Your task to perform on an android device: Open calendar and show me the fourth week of next month Image 0: 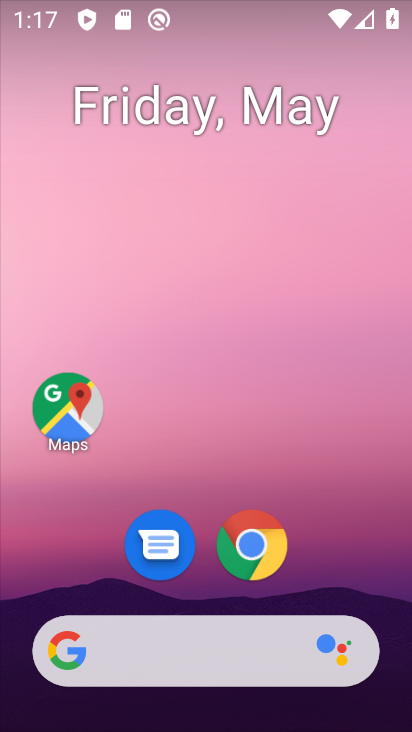
Step 0: drag from (307, 669) to (143, 83)
Your task to perform on an android device: Open calendar and show me the fourth week of next month Image 1: 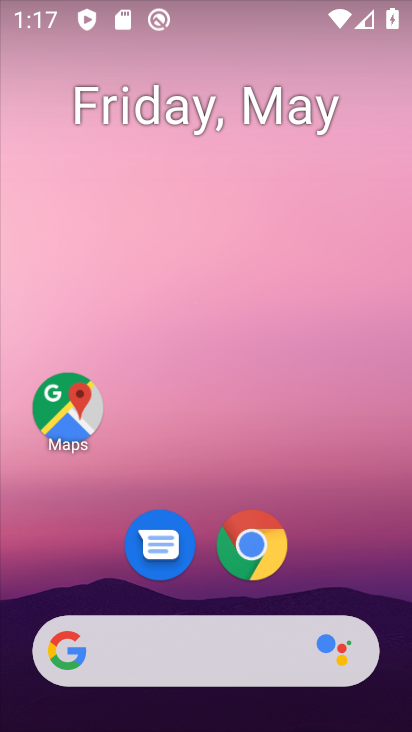
Step 1: drag from (330, 502) to (158, 4)
Your task to perform on an android device: Open calendar and show me the fourth week of next month Image 2: 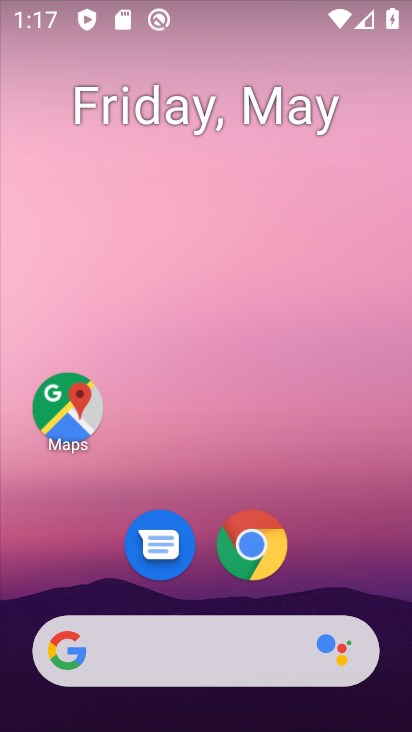
Step 2: drag from (347, 547) to (155, 1)
Your task to perform on an android device: Open calendar and show me the fourth week of next month Image 3: 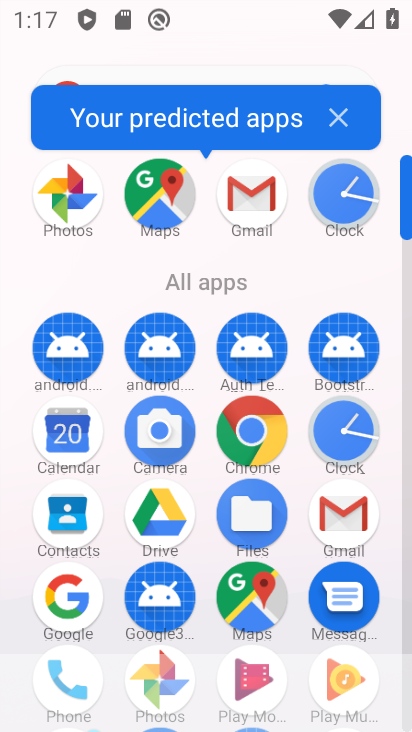
Step 3: drag from (121, 323) to (135, 10)
Your task to perform on an android device: Open calendar and show me the fourth week of next month Image 4: 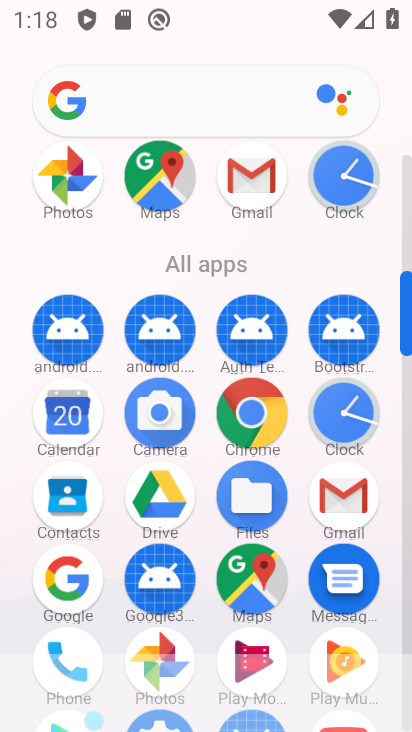
Step 4: click (67, 417)
Your task to perform on an android device: Open calendar and show me the fourth week of next month Image 5: 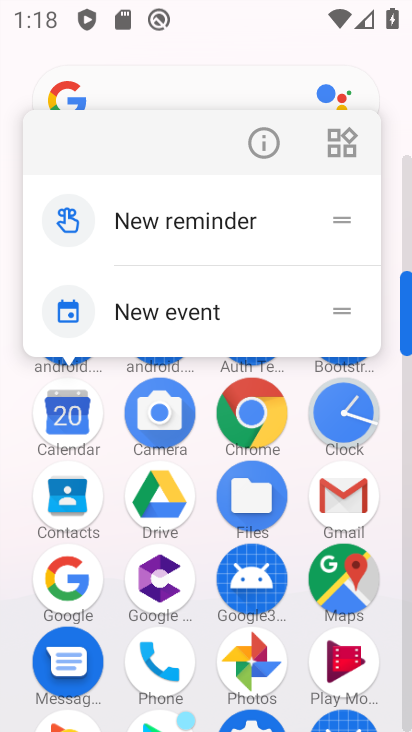
Step 5: click (164, 312)
Your task to perform on an android device: Open calendar and show me the fourth week of next month Image 6: 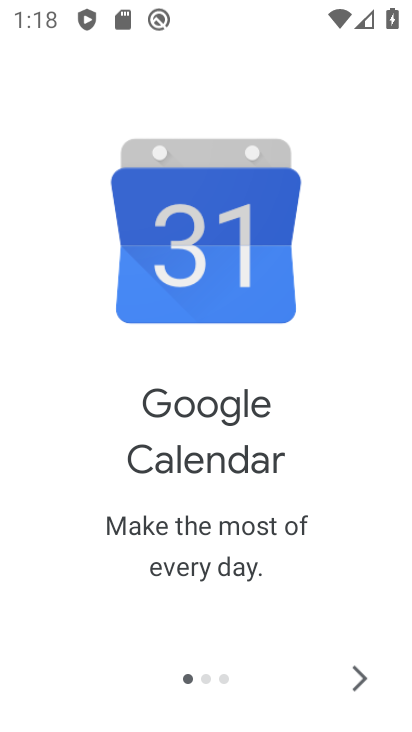
Step 6: click (362, 682)
Your task to perform on an android device: Open calendar and show me the fourth week of next month Image 7: 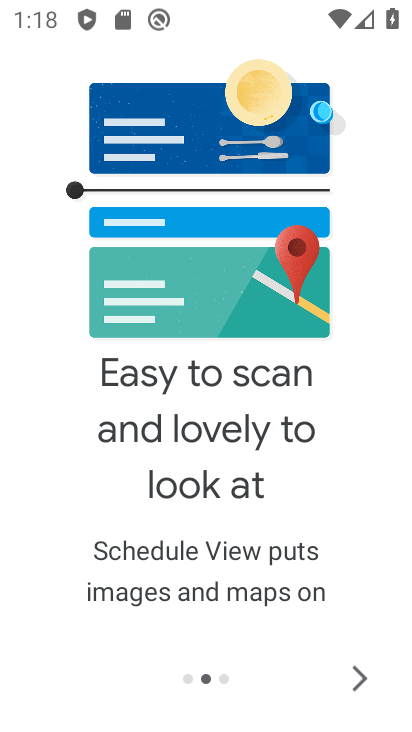
Step 7: click (368, 680)
Your task to perform on an android device: Open calendar and show me the fourth week of next month Image 8: 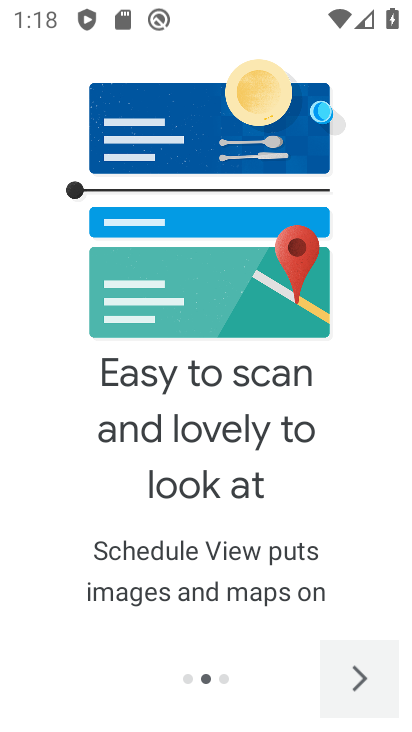
Step 8: click (367, 680)
Your task to perform on an android device: Open calendar and show me the fourth week of next month Image 9: 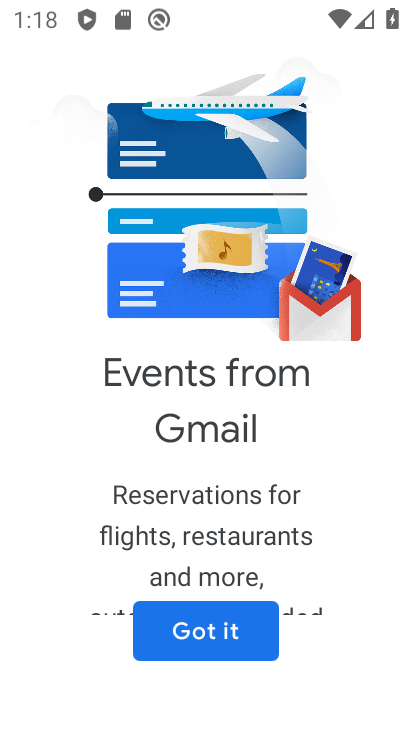
Step 9: click (236, 623)
Your task to perform on an android device: Open calendar and show me the fourth week of next month Image 10: 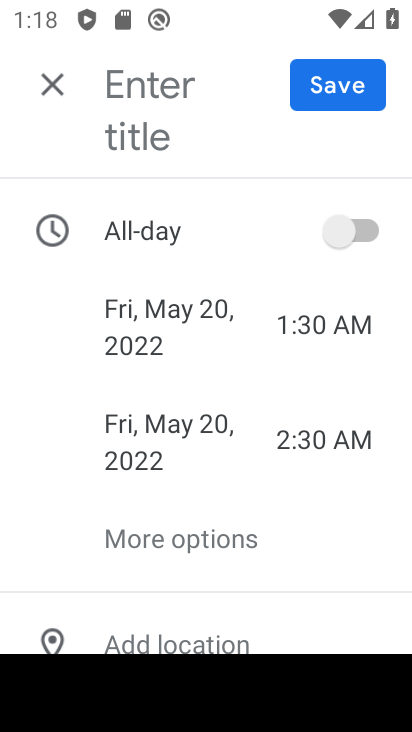
Step 10: click (62, 85)
Your task to perform on an android device: Open calendar and show me the fourth week of next month Image 11: 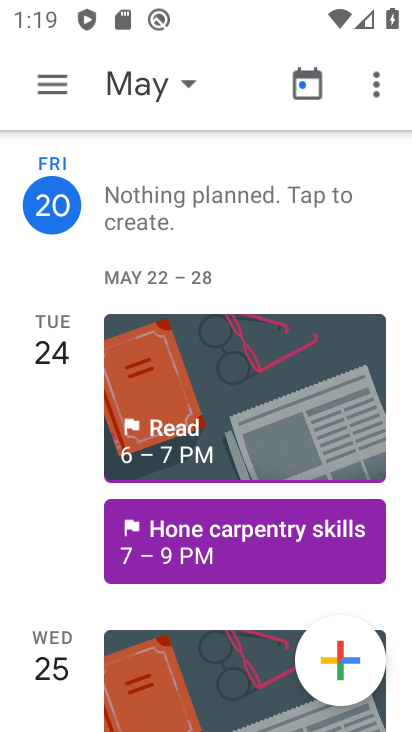
Step 11: click (184, 76)
Your task to perform on an android device: Open calendar and show me the fourth week of next month Image 12: 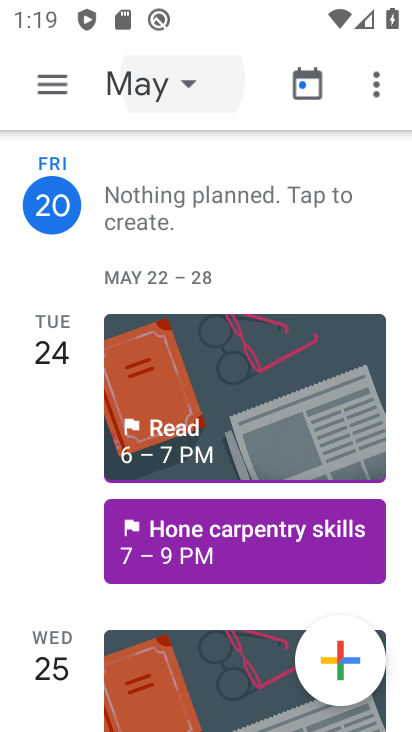
Step 12: click (187, 76)
Your task to perform on an android device: Open calendar and show me the fourth week of next month Image 13: 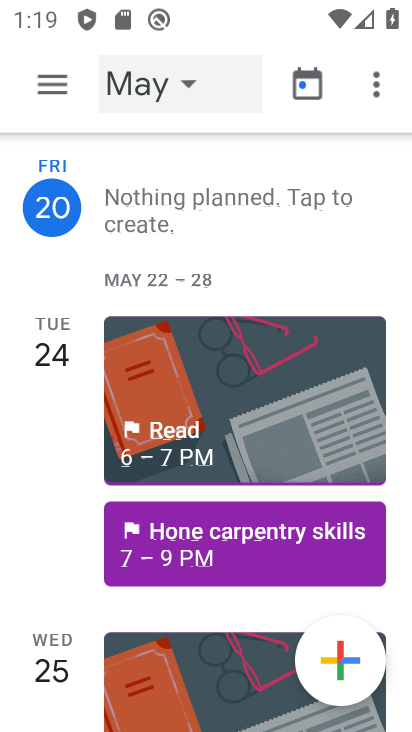
Step 13: click (190, 77)
Your task to perform on an android device: Open calendar and show me the fourth week of next month Image 14: 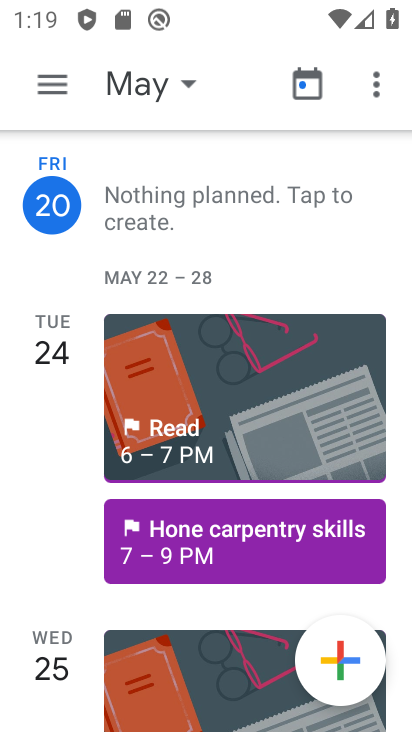
Step 14: click (176, 79)
Your task to perform on an android device: Open calendar and show me the fourth week of next month Image 15: 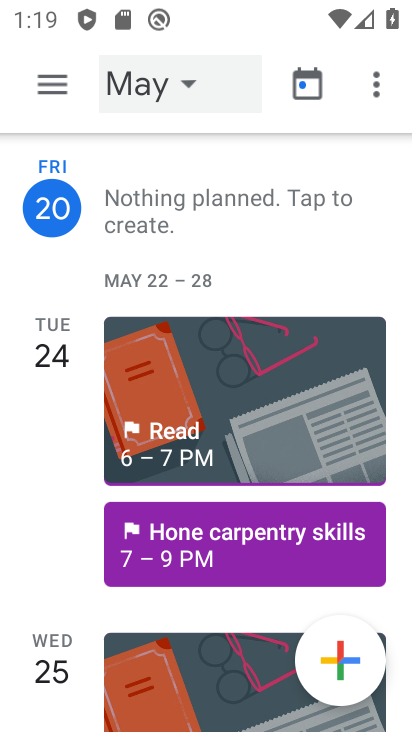
Step 15: click (181, 84)
Your task to perform on an android device: Open calendar and show me the fourth week of next month Image 16: 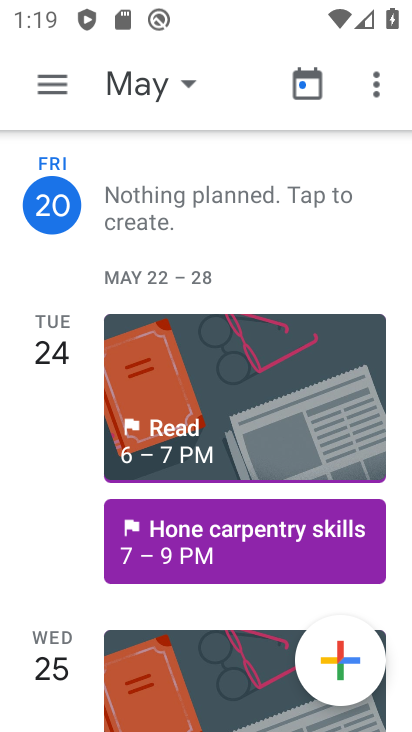
Step 16: click (184, 101)
Your task to perform on an android device: Open calendar and show me the fourth week of next month Image 17: 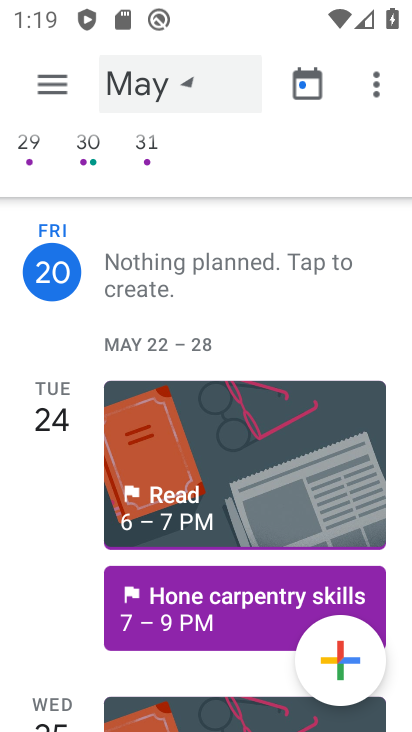
Step 17: click (181, 86)
Your task to perform on an android device: Open calendar and show me the fourth week of next month Image 18: 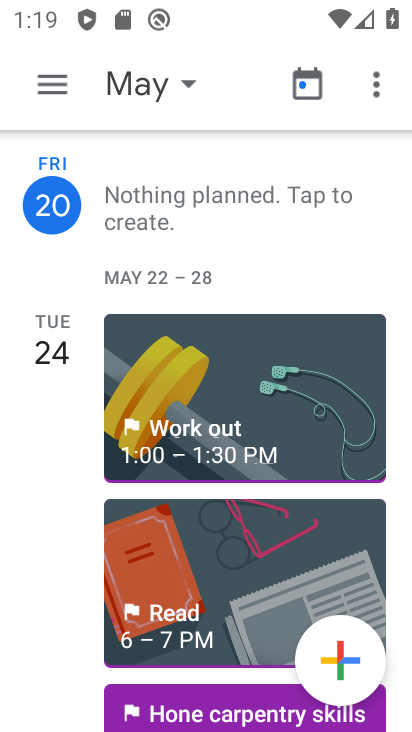
Step 18: click (189, 79)
Your task to perform on an android device: Open calendar and show me the fourth week of next month Image 19: 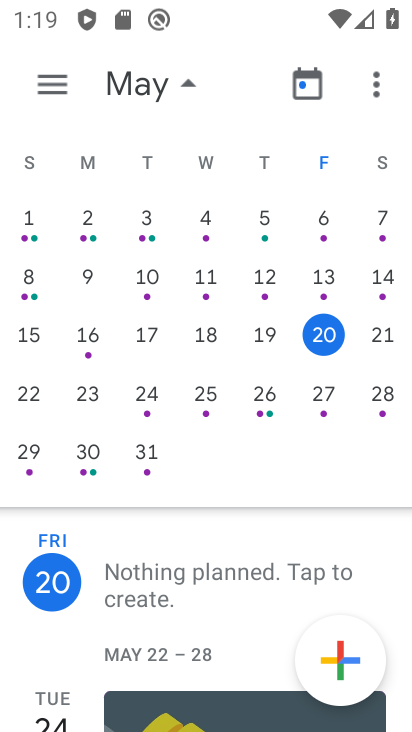
Step 19: drag from (292, 310) to (7, 320)
Your task to perform on an android device: Open calendar and show me the fourth week of next month Image 20: 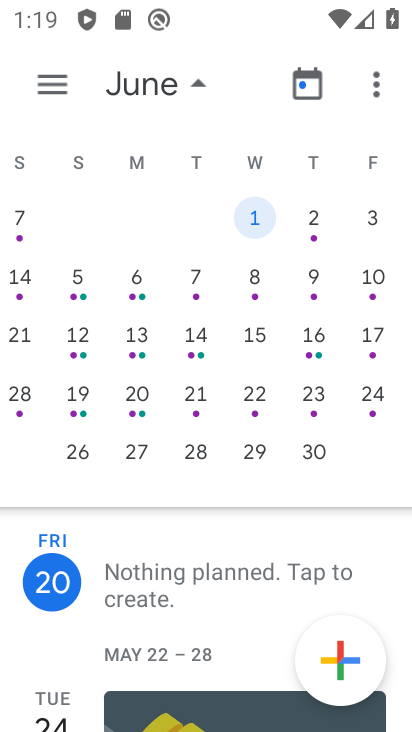
Step 20: drag from (243, 302) to (3, 260)
Your task to perform on an android device: Open calendar and show me the fourth week of next month Image 21: 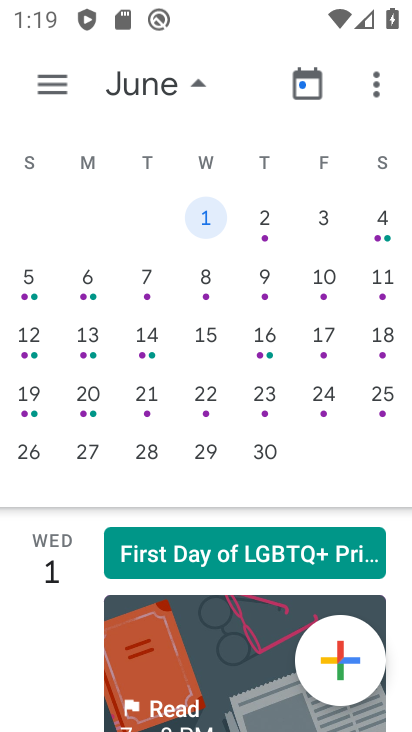
Step 21: click (198, 394)
Your task to perform on an android device: Open calendar and show me the fourth week of next month Image 22: 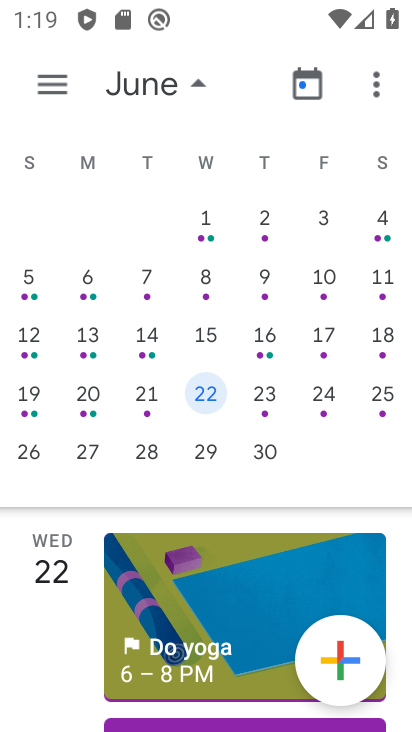
Step 22: click (199, 393)
Your task to perform on an android device: Open calendar and show me the fourth week of next month Image 23: 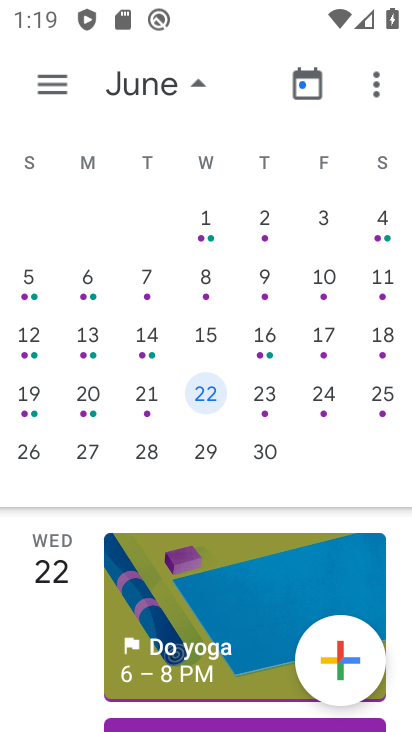
Step 23: click (204, 398)
Your task to perform on an android device: Open calendar and show me the fourth week of next month Image 24: 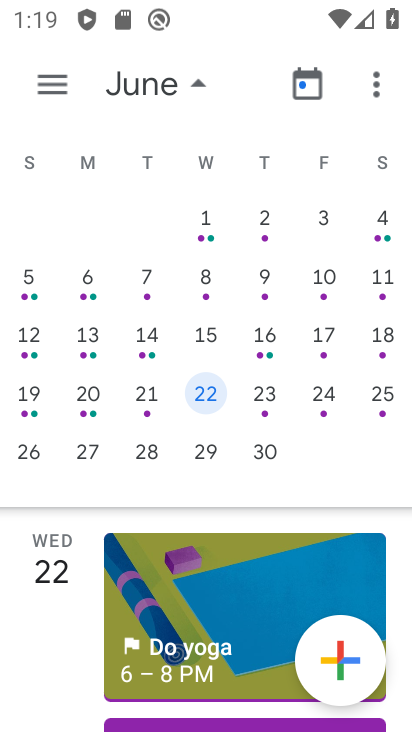
Step 24: task complete